Your task to perform on an android device: turn off wifi Image 0: 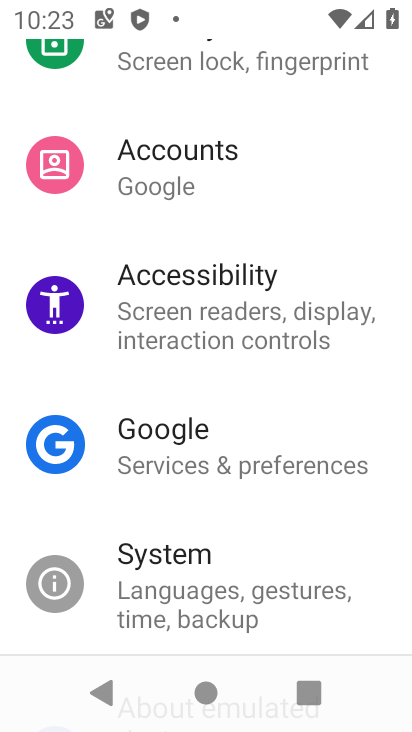
Step 0: press home button
Your task to perform on an android device: turn off wifi Image 1: 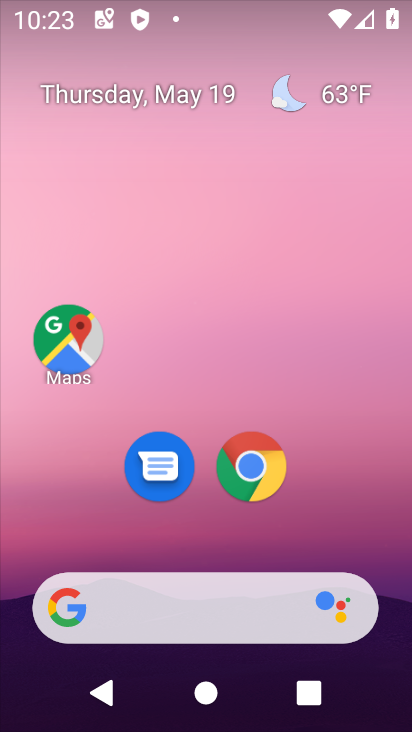
Step 1: drag from (240, 0) to (314, 617)
Your task to perform on an android device: turn off wifi Image 2: 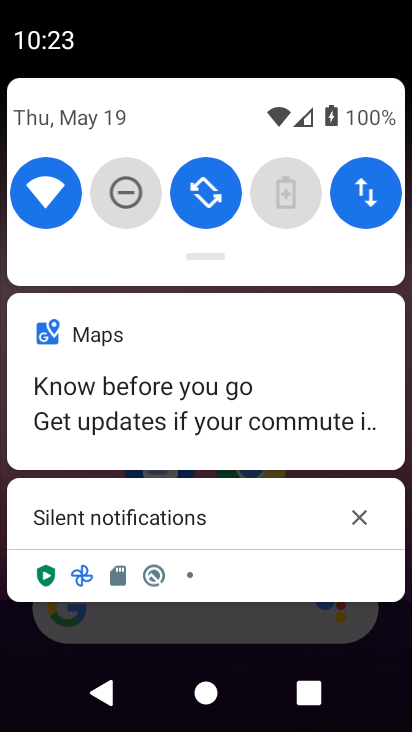
Step 2: click (47, 192)
Your task to perform on an android device: turn off wifi Image 3: 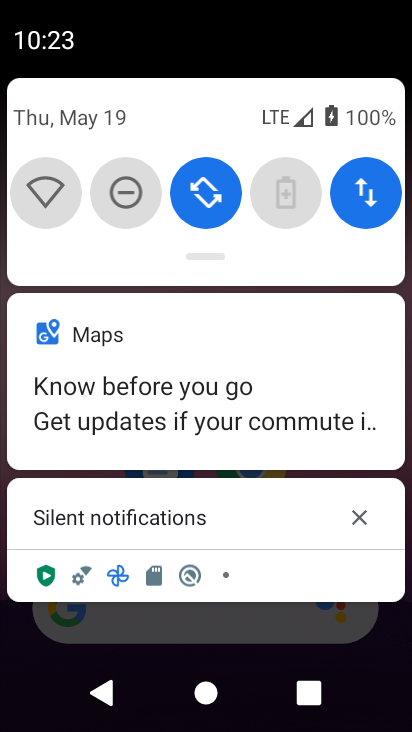
Step 3: task complete